Your task to perform on an android device: change the clock display to digital Image 0: 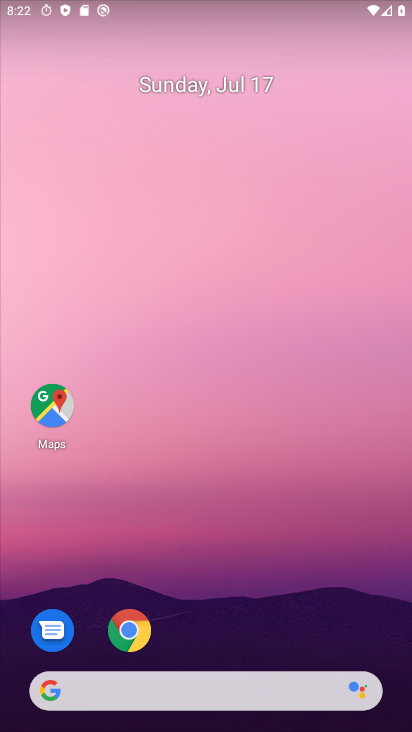
Step 0: drag from (60, 619) to (180, 316)
Your task to perform on an android device: change the clock display to digital Image 1: 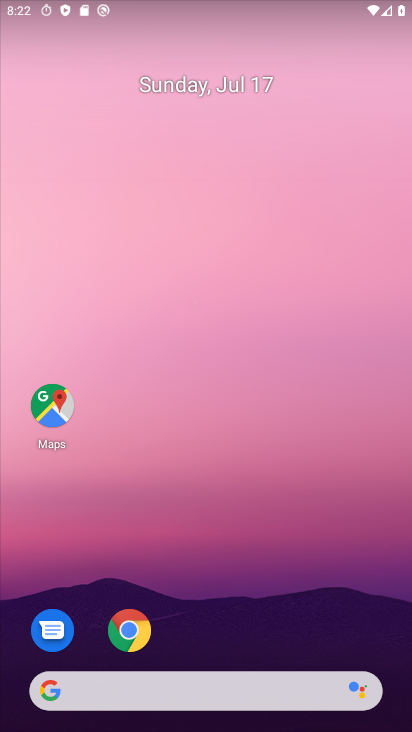
Step 1: drag from (32, 677) to (246, 62)
Your task to perform on an android device: change the clock display to digital Image 2: 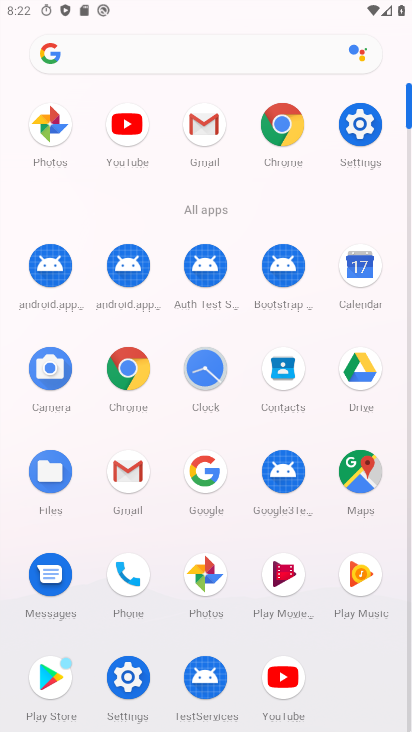
Step 2: click (194, 375)
Your task to perform on an android device: change the clock display to digital Image 3: 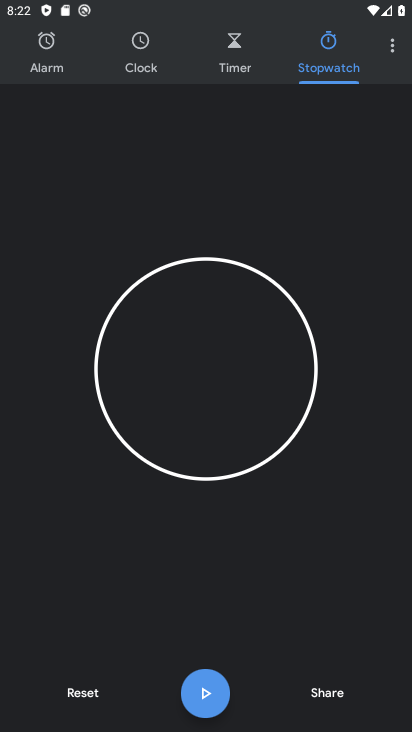
Step 3: click (143, 62)
Your task to perform on an android device: change the clock display to digital Image 4: 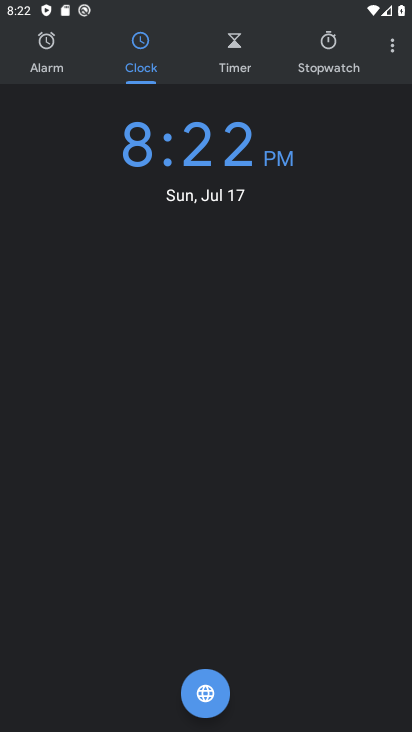
Step 4: click (385, 44)
Your task to perform on an android device: change the clock display to digital Image 5: 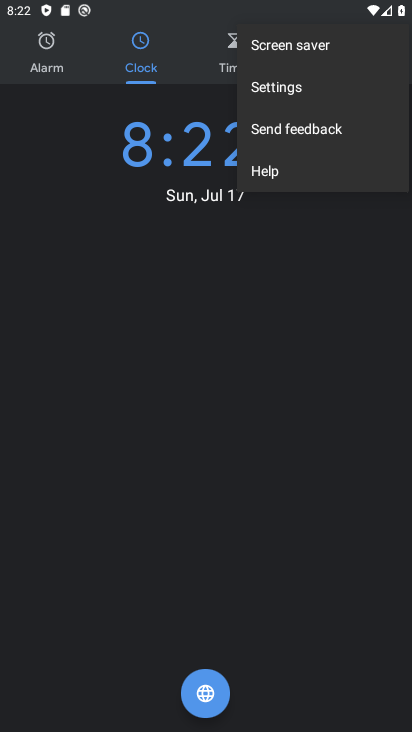
Step 5: click (299, 91)
Your task to perform on an android device: change the clock display to digital Image 6: 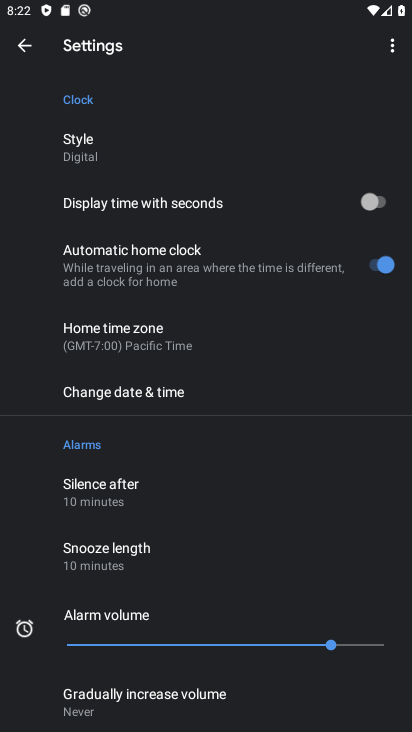
Step 6: task complete